Your task to perform on an android device: turn on wifi Image 0: 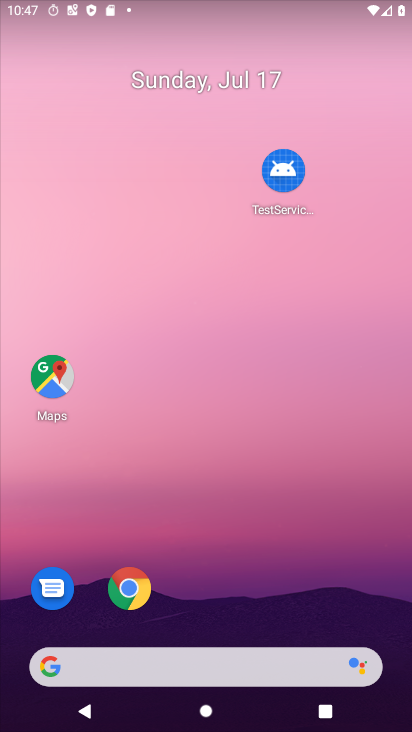
Step 0: drag from (235, 635) to (270, 9)
Your task to perform on an android device: turn on wifi Image 1: 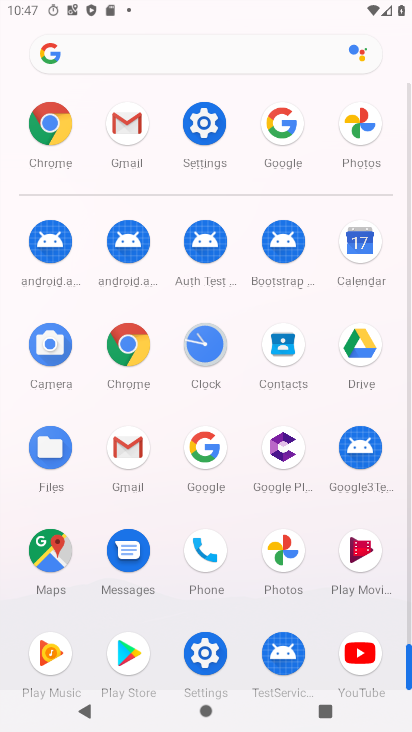
Step 1: click (218, 142)
Your task to perform on an android device: turn on wifi Image 2: 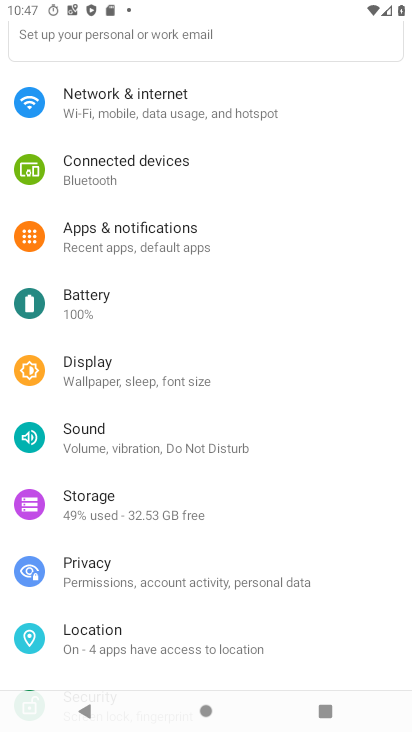
Step 2: drag from (173, 230) to (170, 501)
Your task to perform on an android device: turn on wifi Image 3: 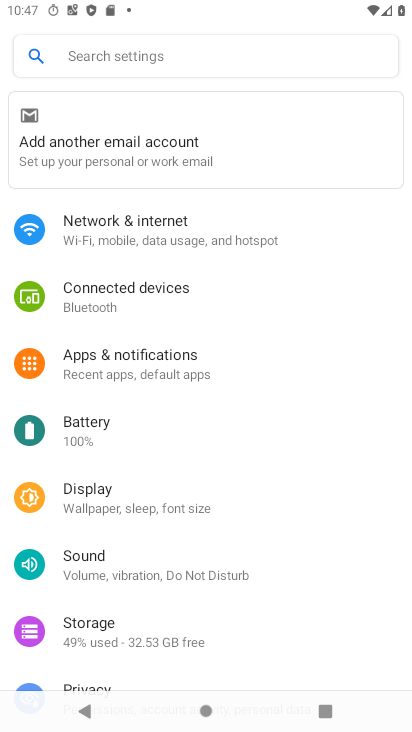
Step 3: click (156, 243)
Your task to perform on an android device: turn on wifi Image 4: 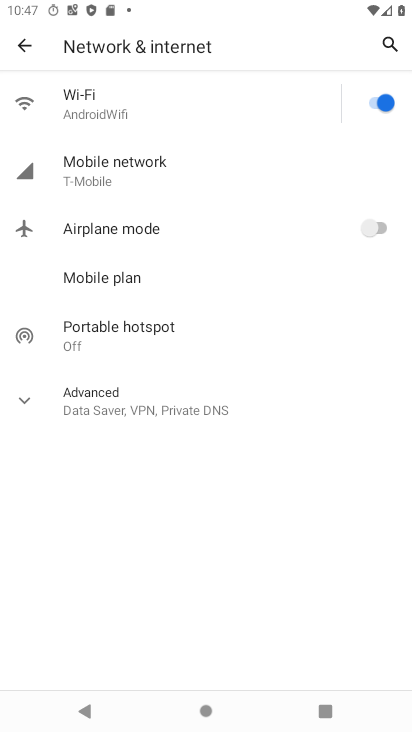
Step 4: task complete